Your task to perform on an android device: check out phone information Image 0: 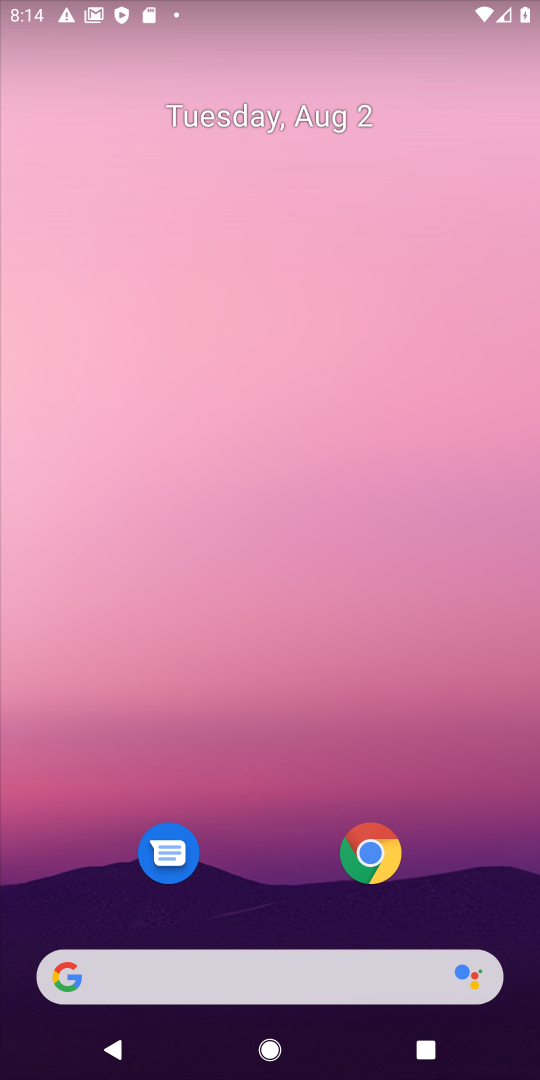
Step 0: drag from (293, 877) to (204, 111)
Your task to perform on an android device: check out phone information Image 1: 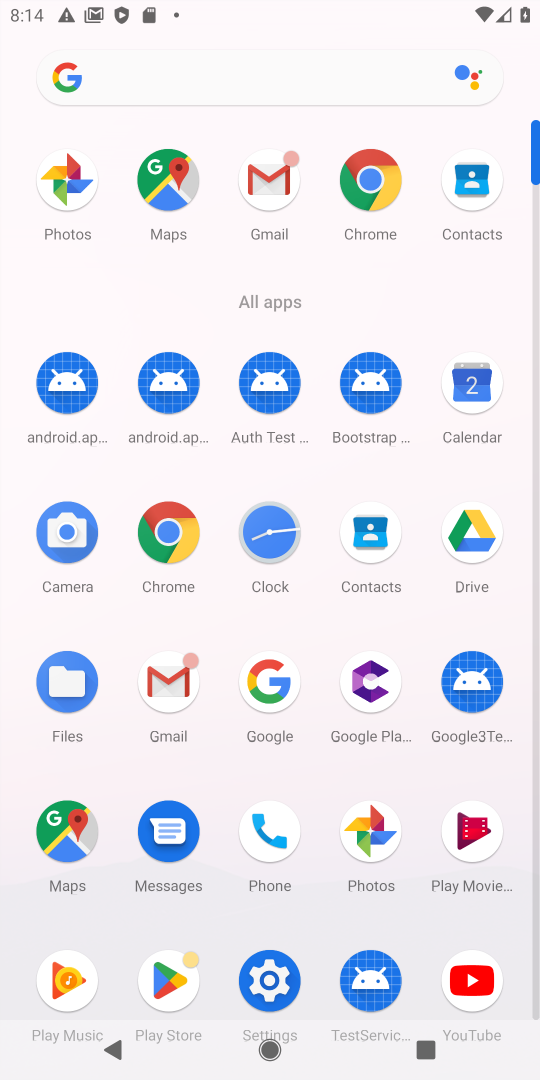
Step 1: click (263, 845)
Your task to perform on an android device: check out phone information Image 2: 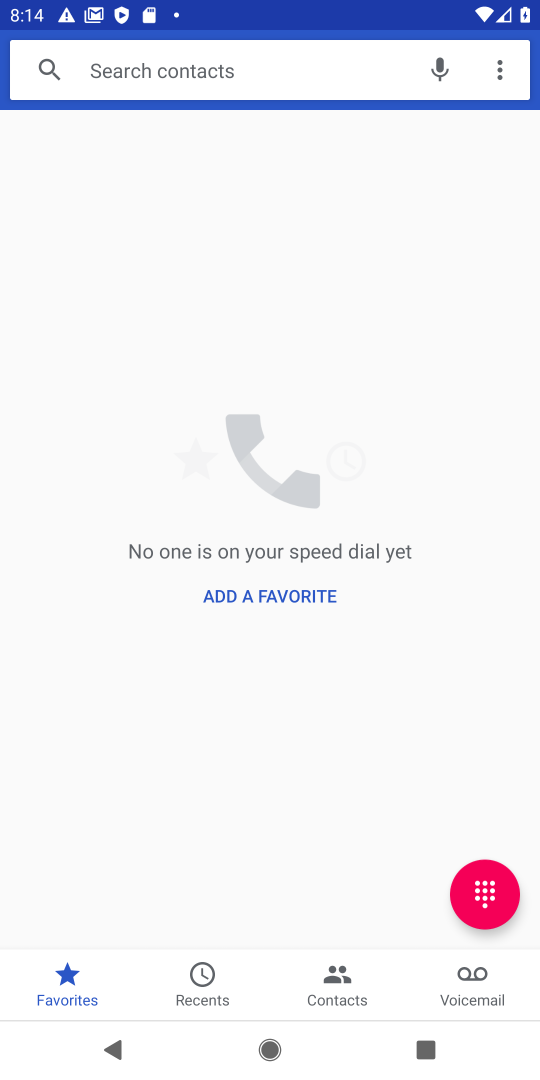
Step 2: click (496, 64)
Your task to perform on an android device: check out phone information Image 3: 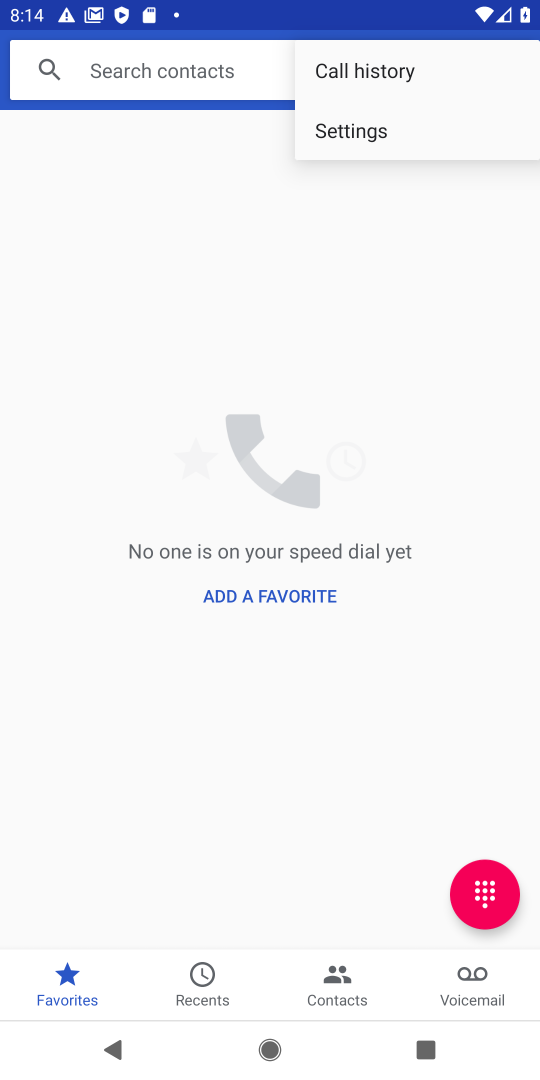
Step 3: click (359, 125)
Your task to perform on an android device: check out phone information Image 4: 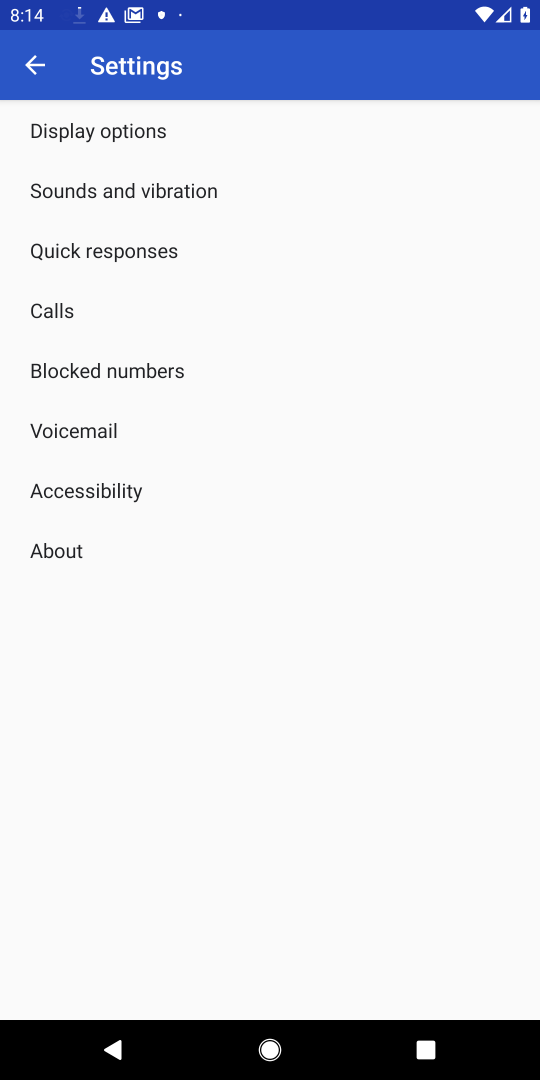
Step 4: click (64, 557)
Your task to perform on an android device: check out phone information Image 5: 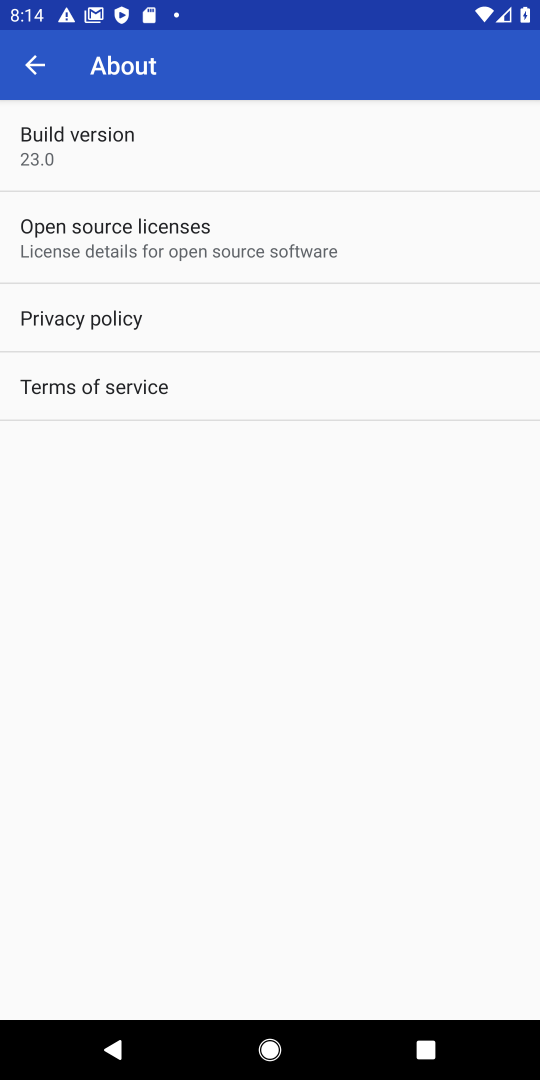
Step 5: task complete